Your task to perform on an android device: turn off picture-in-picture Image 0: 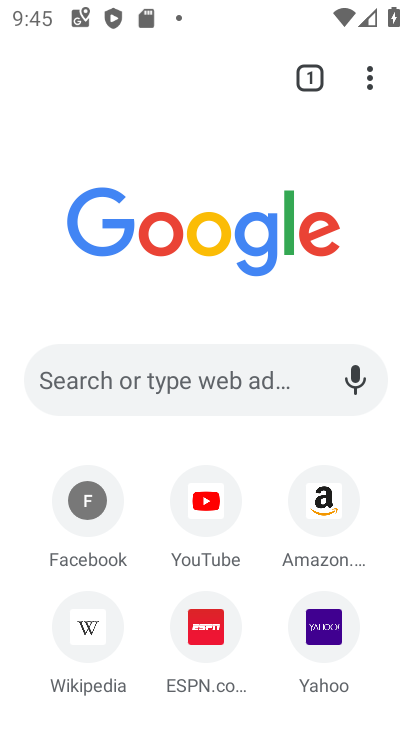
Step 0: press home button
Your task to perform on an android device: turn off picture-in-picture Image 1: 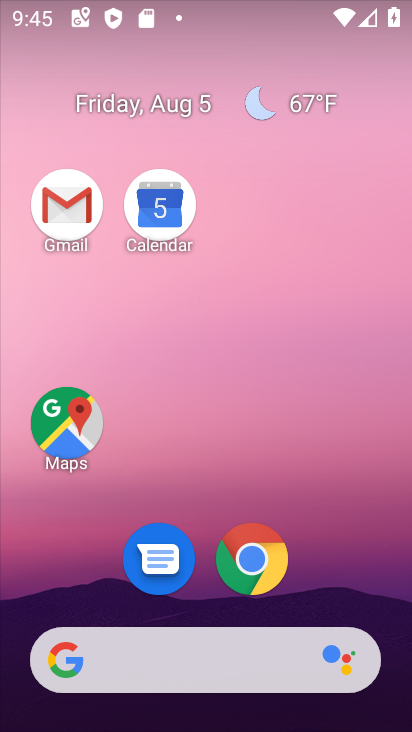
Step 1: click (233, 555)
Your task to perform on an android device: turn off picture-in-picture Image 2: 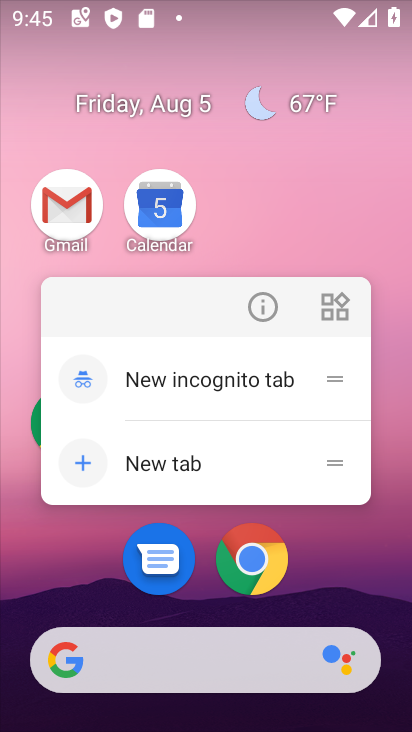
Step 2: click (265, 319)
Your task to perform on an android device: turn off picture-in-picture Image 3: 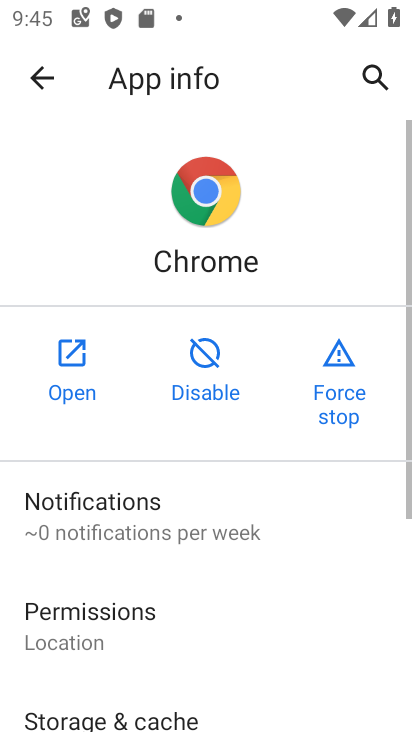
Step 3: drag from (297, 560) to (245, 173)
Your task to perform on an android device: turn off picture-in-picture Image 4: 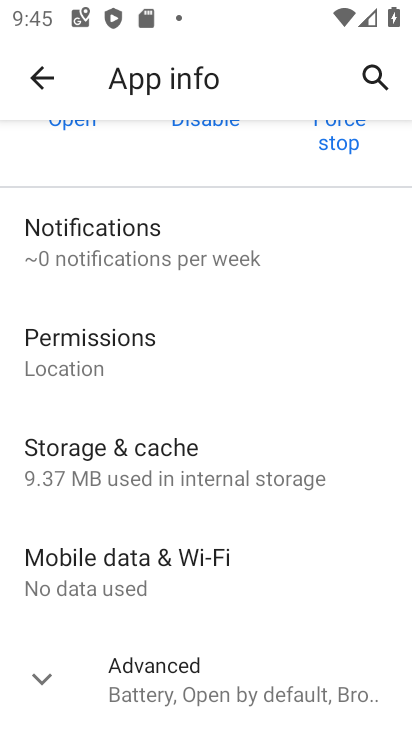
Step 4: drag from (243, 568) to (217, 227)
Your task to perform on an android device: turn off picture-in-picture Image 5: 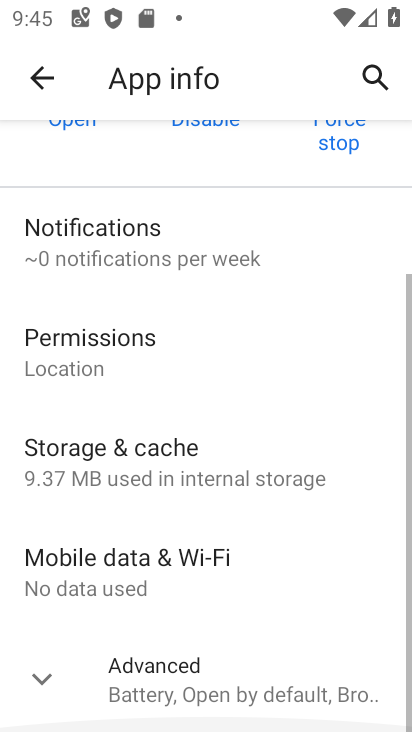
Step 5: click (246, 676)
Your task to perform on an android device: turn off picture-in-picture Image 6: 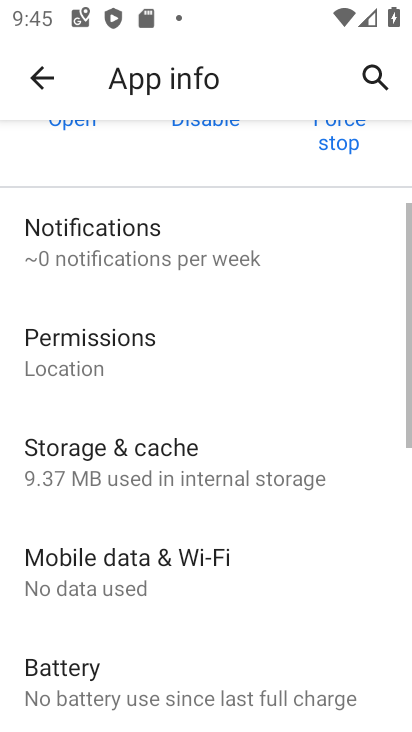
Step 6: drag from (251, 649) to (269, 217)
Your task to perform on an android device: turn off picture-in-picture Image 7: 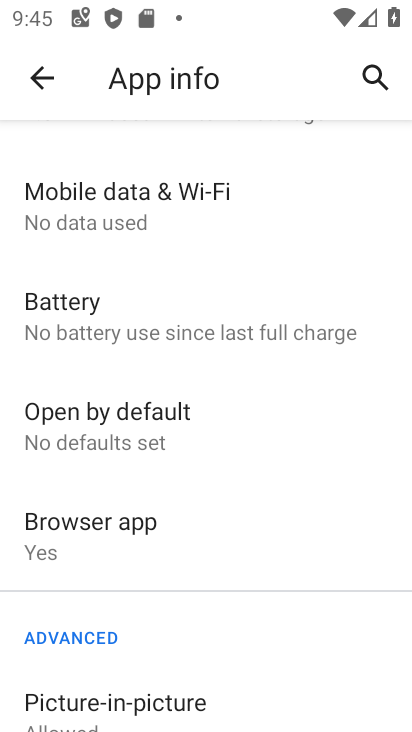
Step 7: drag from (226, 616) to (254, 277)
Your task to perform on an android device: turn off picture-in-picture Image 8: 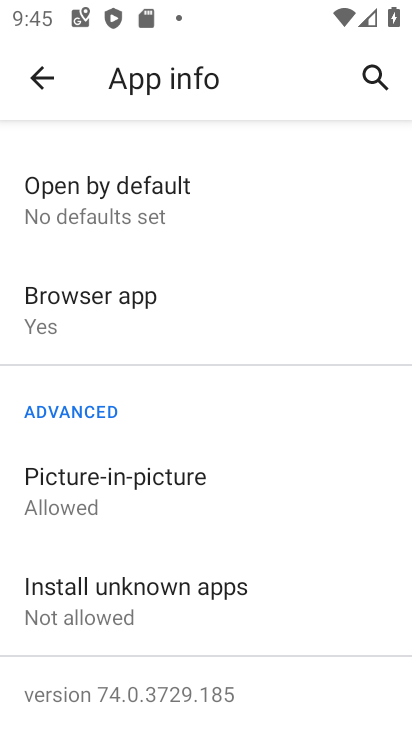
Step 8: click (192, 494)
Your task to perform on an android device: turn off picture-in-picture Image 9: 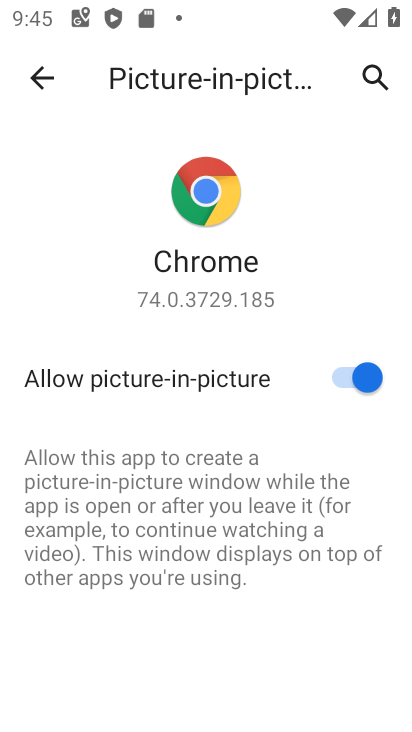
Step 9: click (344, 374)
Your task to perform on an android device: turn off picture-in-picture Image 10: 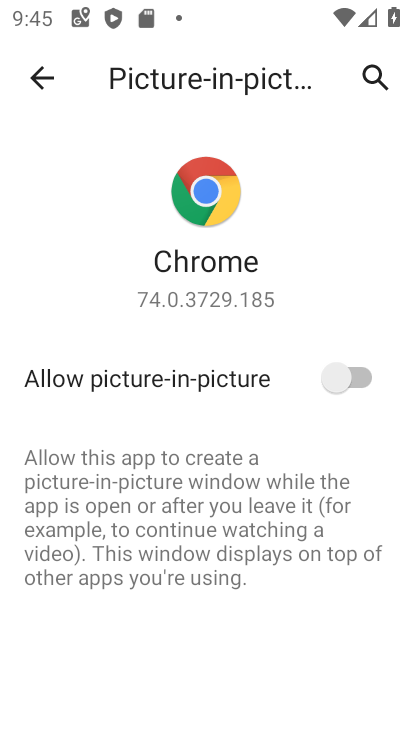
Step 10: task complete